Your task to perform on an android device: What is the recent news? Image 0: 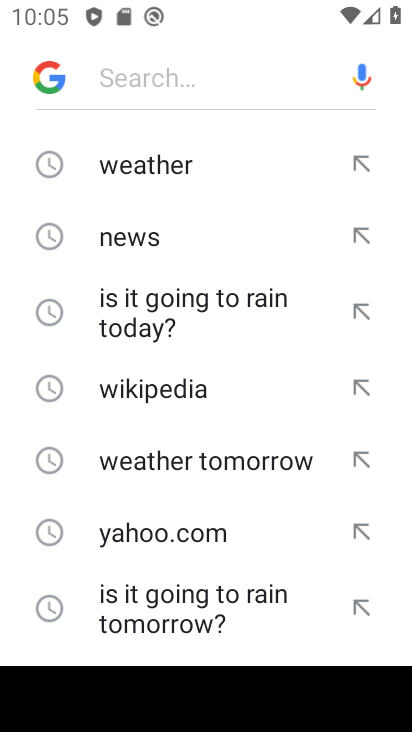
Step 0: click (157, 239)
Your task to perform on an android device: What is the recent news? Image 1: 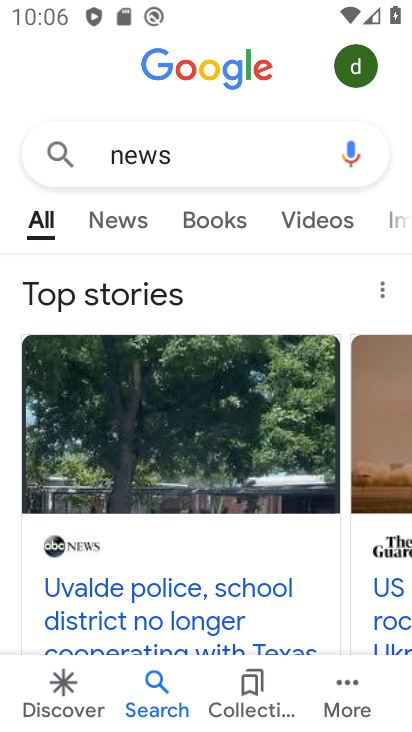
Step 1: task complete